Your task to perform on an android device: Open Android settings Image 0: 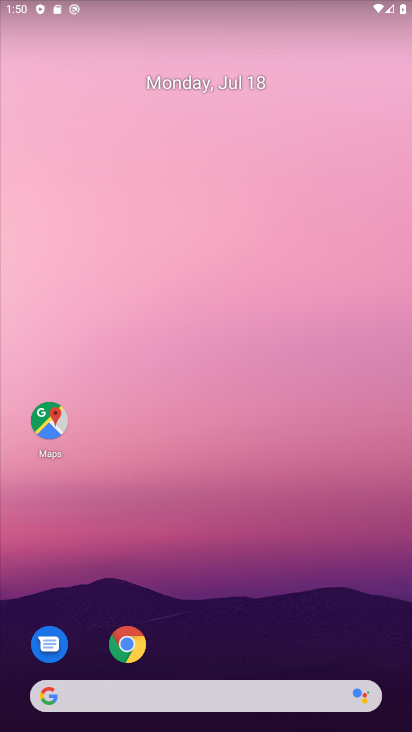
Step 0: drag from (192, 658) to (206, 317)
Your task to perform on an android device: Open Android settings Image 1: 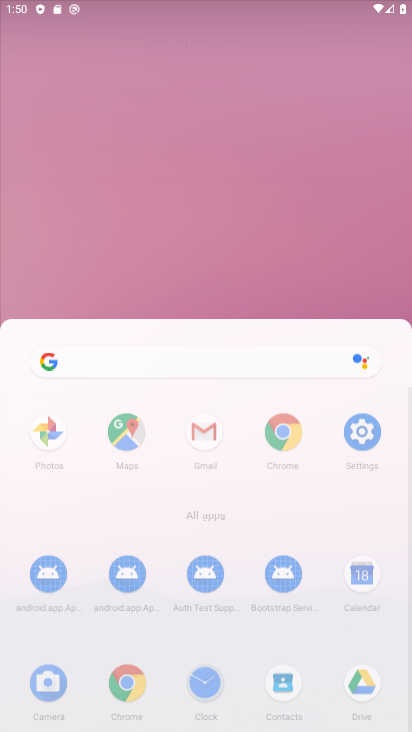
Step 1: drag from (203, 659) to (203, 145)
Your task to perform on an android device: Open Android settings Image 2: 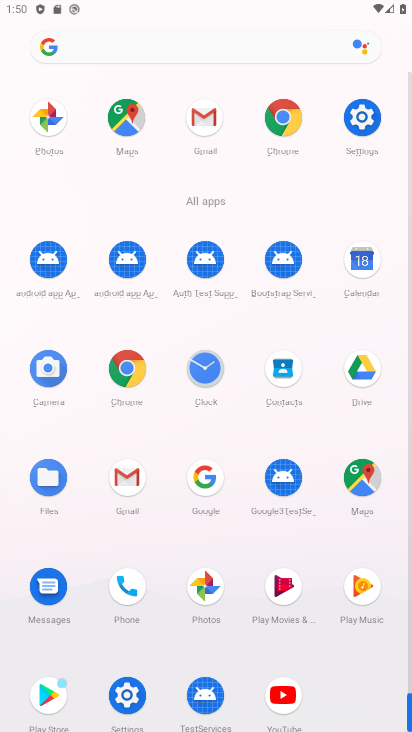
Step 2: click (354, 106)
Your task to perform on an android device: Open Android settings Image 3: 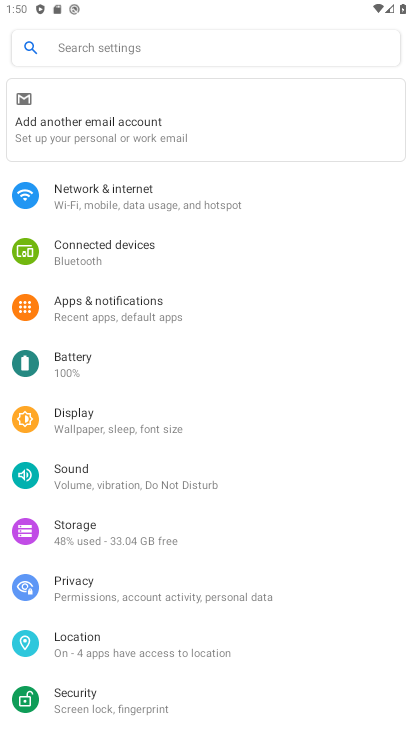
Step 3: drag from (101, 555) to (95, 163)
Your task to perform on an android device: Open Android settings Image 4: 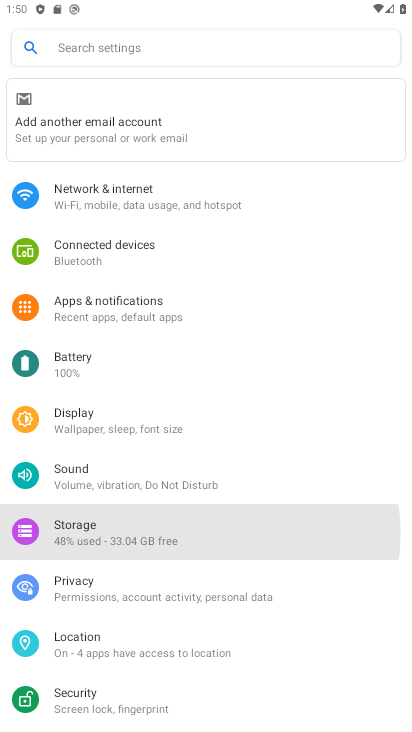
Step 4: drag from (228, 584) to (196, 247)
Your task to perform on an android device: Open Android settings Image 5: 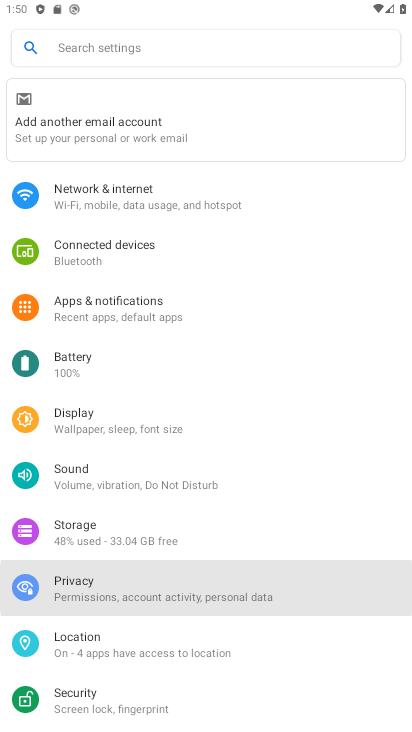
Step 5: drag from (226, 640) to (231, 229)
Your task to perform on an android device: Open Android settings Image 6: 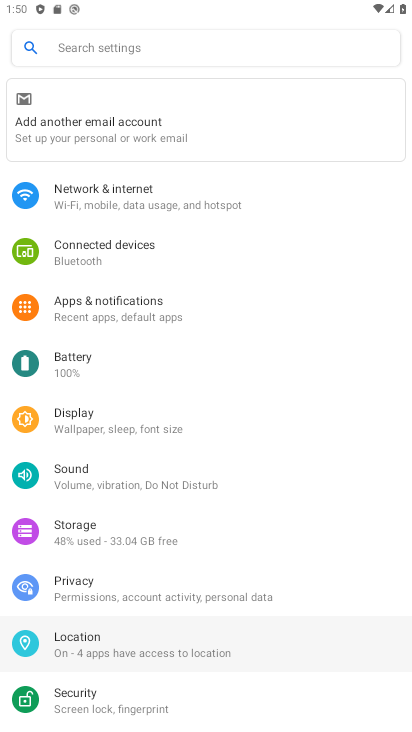
Step 6: drag from (192, 607) to (112, 225)
Your task to perform on an android device: Open Android settings Image 7: 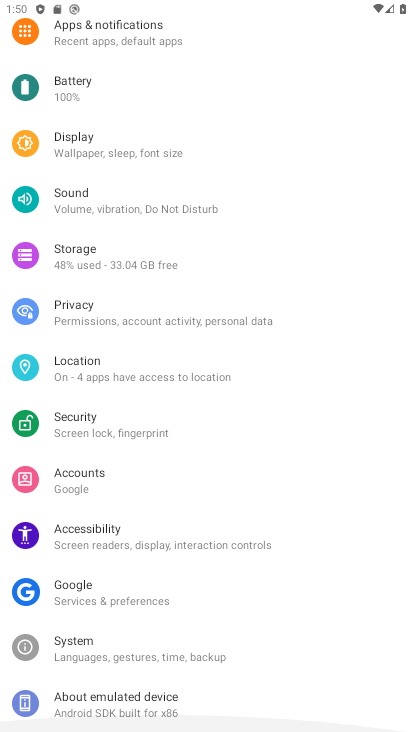
Step 7: drag from (103, 665) to (86, 221)
Your task to perform on an android device: Open Android settings Image 8: 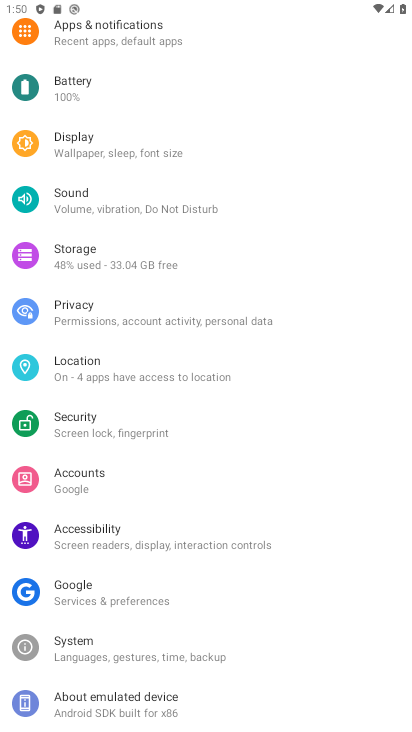
Step 8: click (124, 716)
Your task to perform on an android device: Open Android settings Image 9: 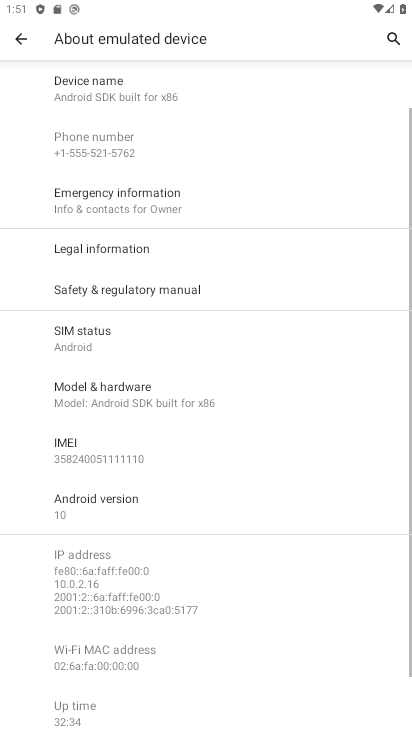
Step 9: task complete